Your task to perform on an android device: toggle wifi Image 0: 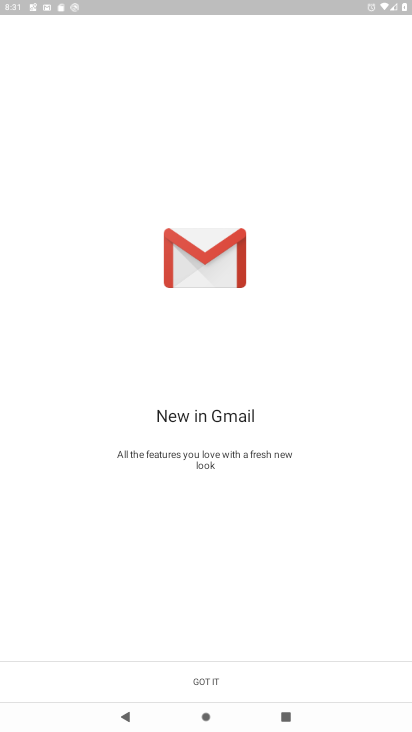
Step 0: press home button
Your task to perform on an android device: toggle wifi Image 1: 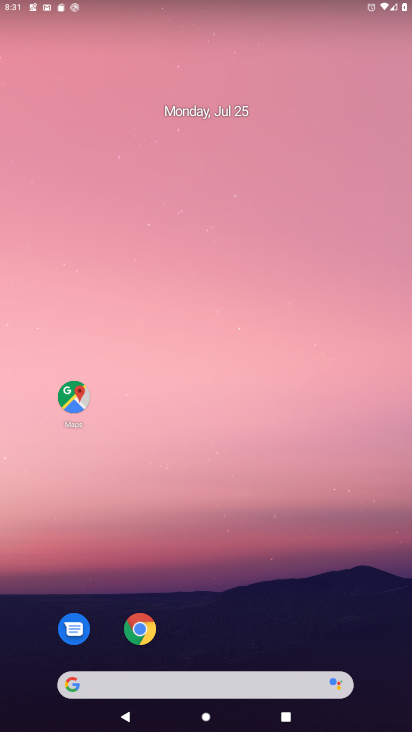
Step 1: drag from (173, 686) to (247, 64)
Your task to perform on an android device: toggle wifi Image 2: 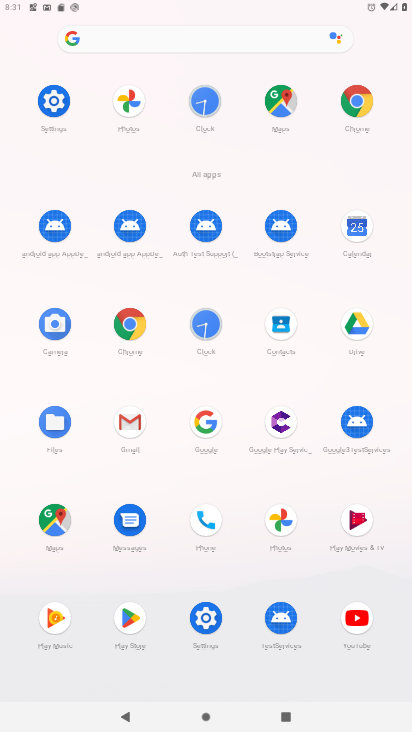
Step 2: click (53, 101)
Your task to perform on an android device: toggle wifi Image 3: 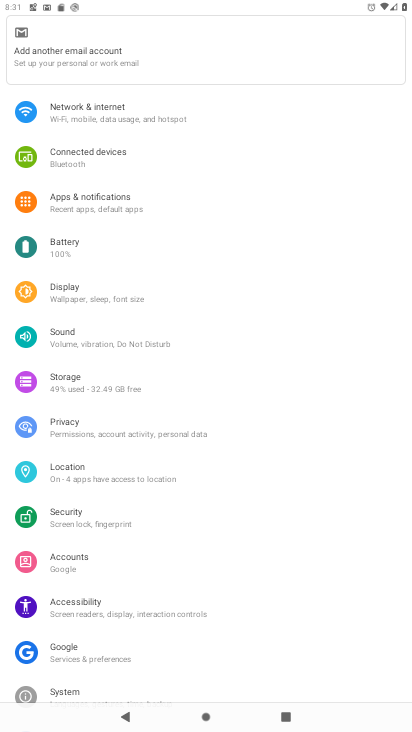
Step 3: click (68, 107)
Your task to perform on an android device: toggle wifi Image 4: 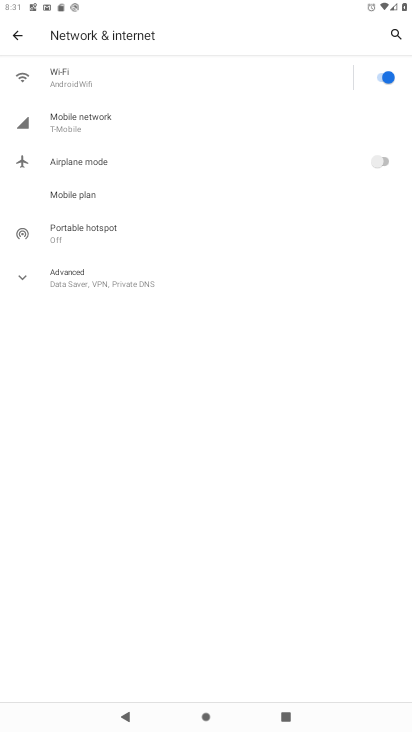
Step 4: click (382, 81)
Your task to perform on an android device: toggle wifi Image 5: 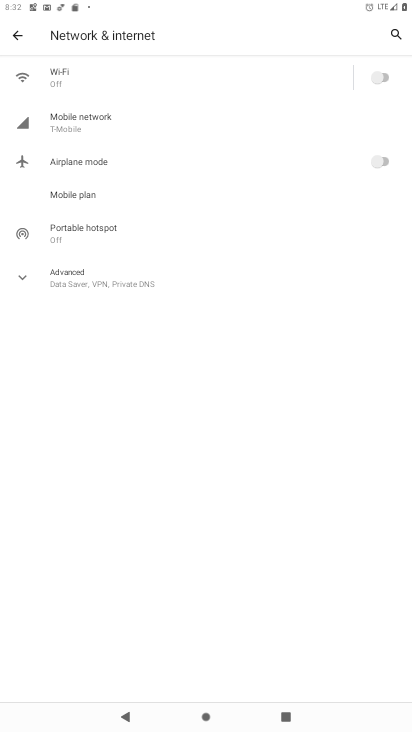
Step 5: task complete